Your task to perform on an android device: clear history in the chrome app Image 0: 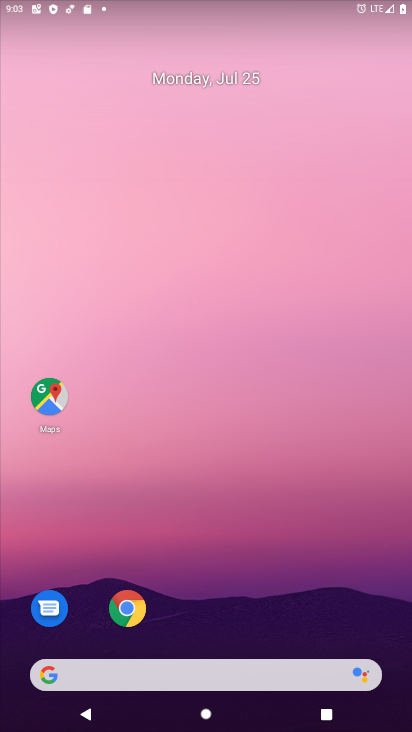
Step 0: click (125, 613)
Your task to perform on an android device: clear history in the chrome app Image 1: 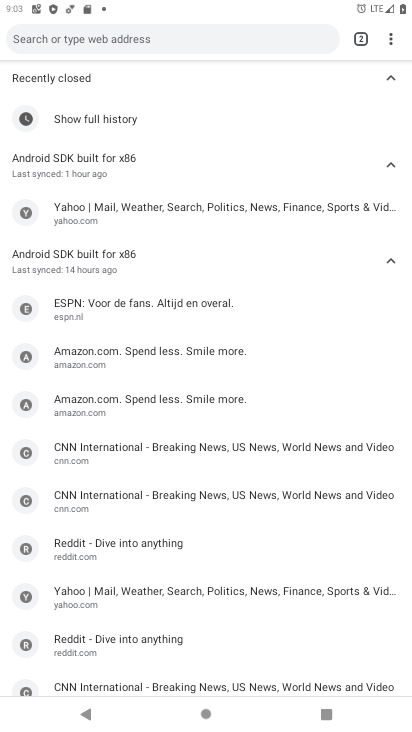
Step 1: click (390, 39)
Your task to perform on an android device: clear history in the chrome app Image 2: 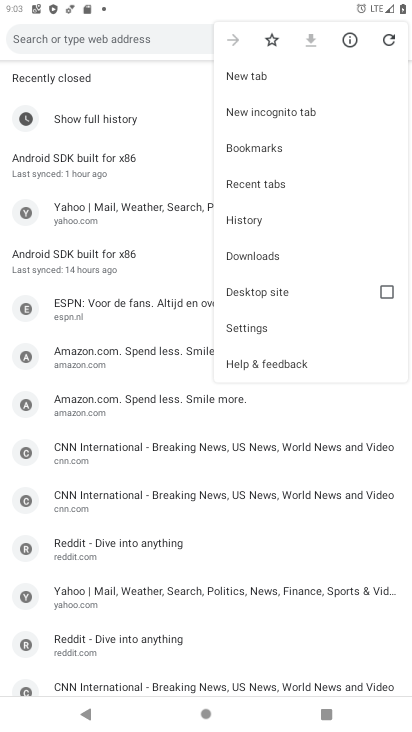
Step 2: click (244, 214)
Your task to perform on an android device: clear history in the chrome app Image 3: 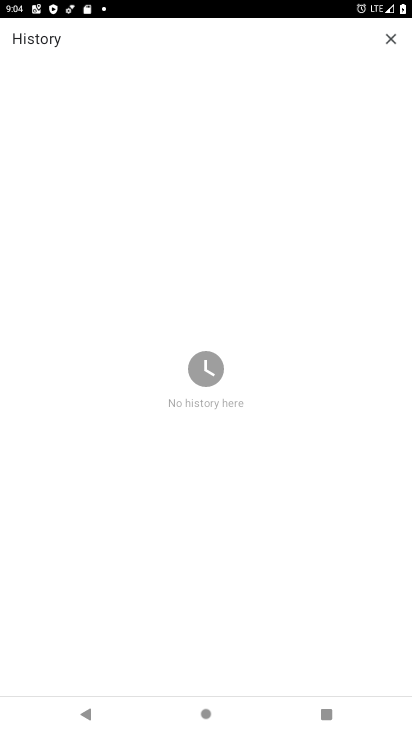
Step 3: task complete